Your task to perform on an android device: What's the weather going to be this weekend? Image 0: 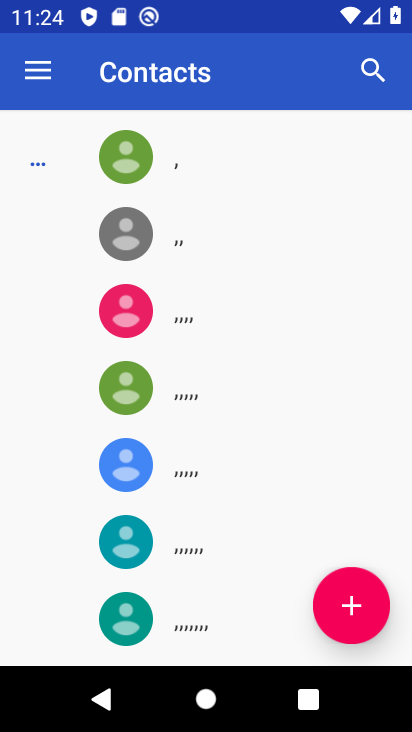
Step 0: press home button
Your task to perform on an android device: What's the weather going to be this weekend? Image 1: 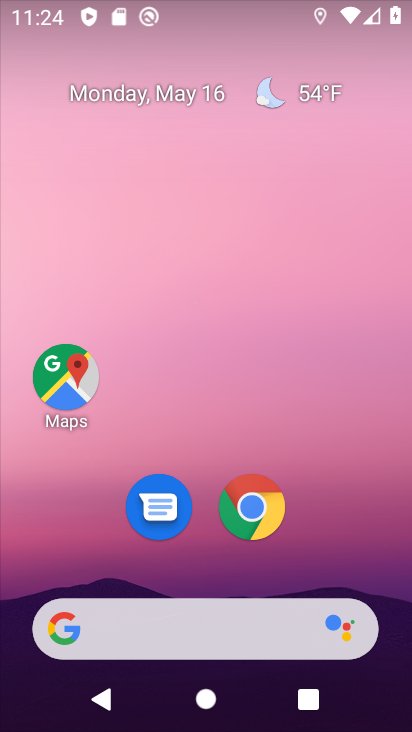
Step 1: click (264, 509)
Your task to perform on an android device: What's the weather going to be this weekend? Image 2: 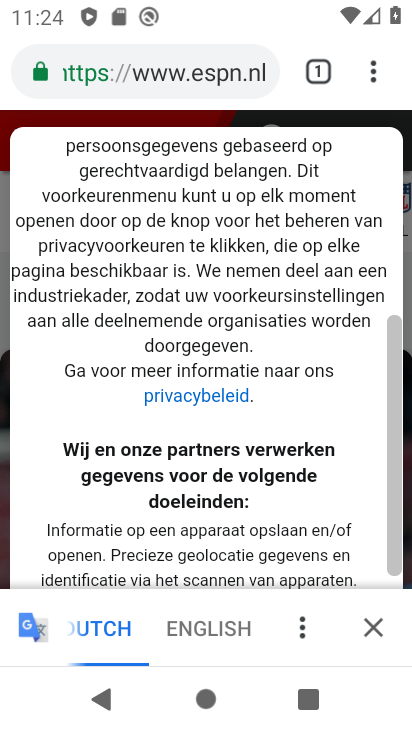
Step 2: click (188, 30)
Your task to perform on an android device: What's the weather going to be this weekend? Image 3: 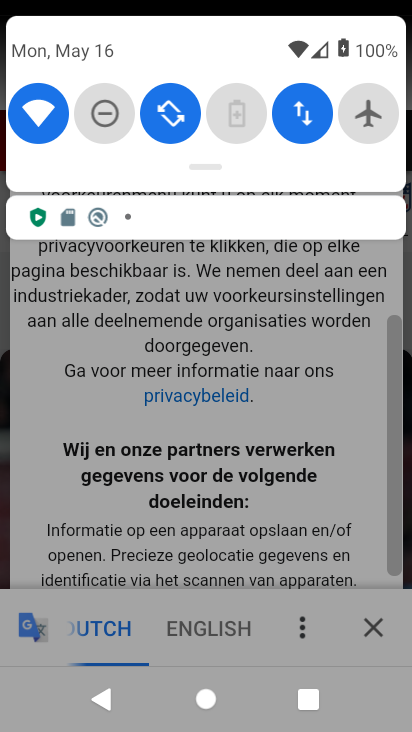
Step 3: click (201, 81)
Your task to perform on an android device: What's the weather going to be this weekend? Image 4: 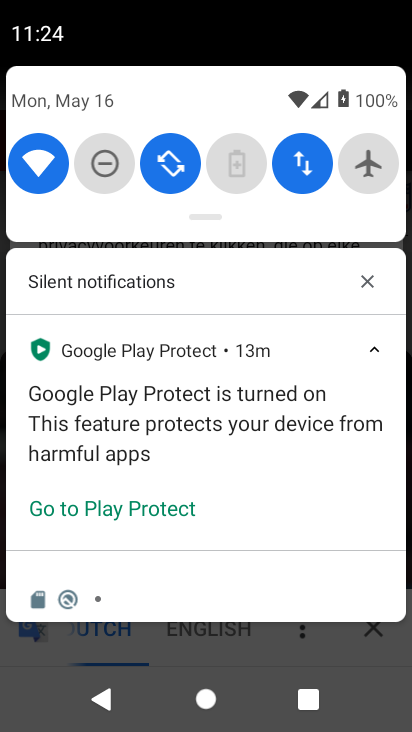
Step 4: press back button
Your task to perform on an android device: What's the weather going to be this weekend? Image 5: 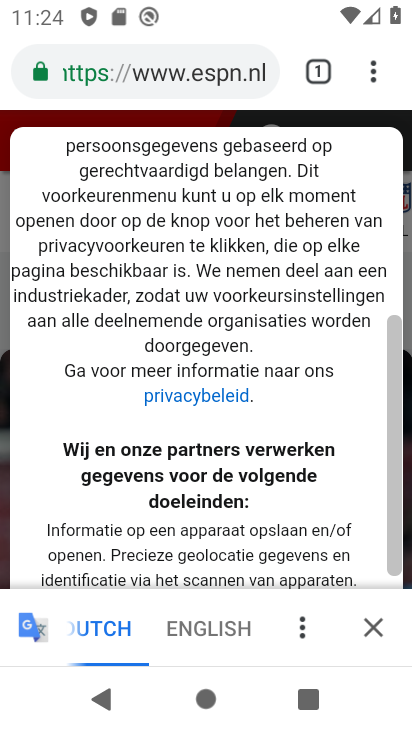
Step 5: click (221, 77)
Your task to perform on an android device: What's the weather going to be this weekend? Image 6: 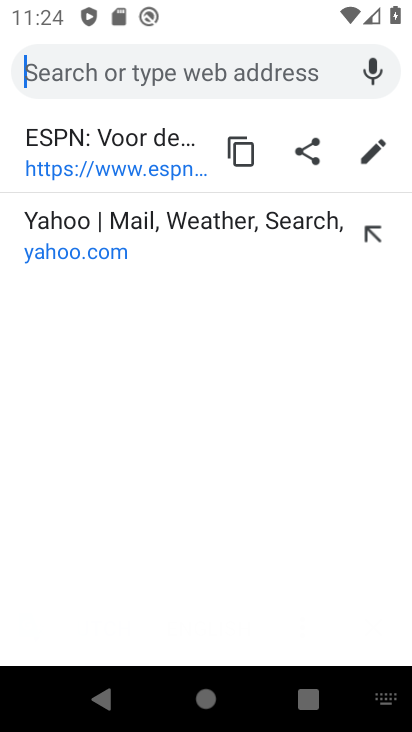
Step 6: type "What's the weather going to be this weekend?"
Your task to perform on an android device: What's the weather going to be this weekend? Image 7: 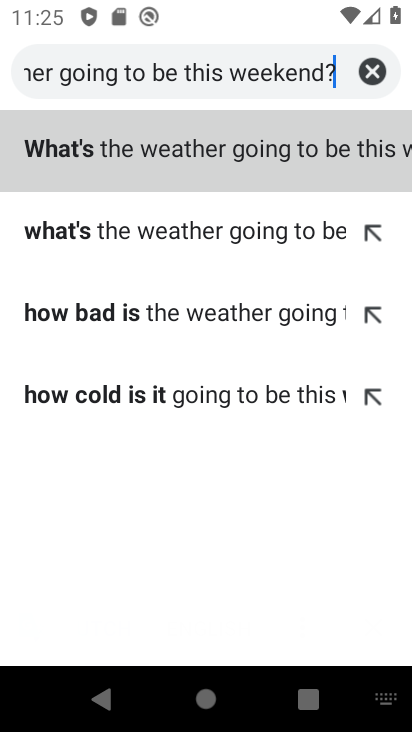
Step 7: click (206, 157)
Your task to perform on an android device: What's the weather going to be this weekend? Image 8: 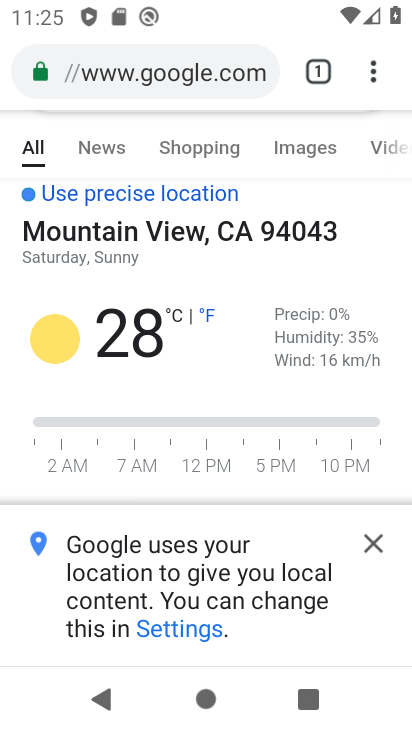
Step 8: click (372, 545)
Your task to perform on an android device: What's the weather going to be this weekend? Image 9: 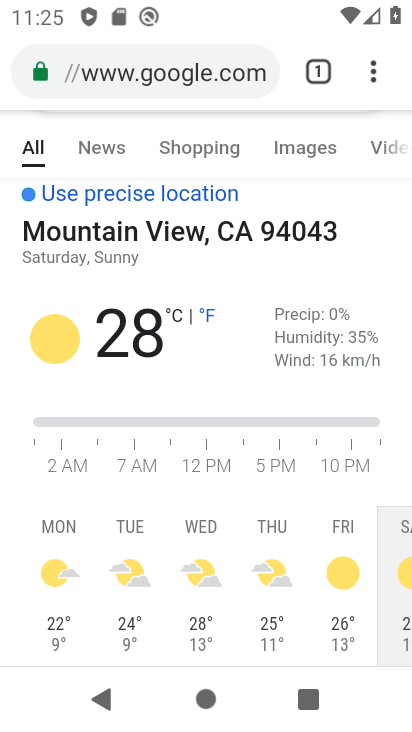
Step 9: task complete